Your task to perform on an android device: star an email in the gmail app Image 0: 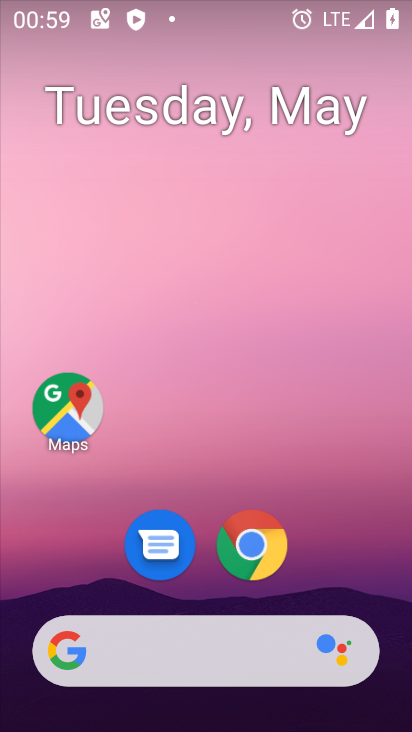
Step 0: drag from (337, 577) to (308, 47)
Your task to perform on an android device: star an email in the gmail app Image 1: 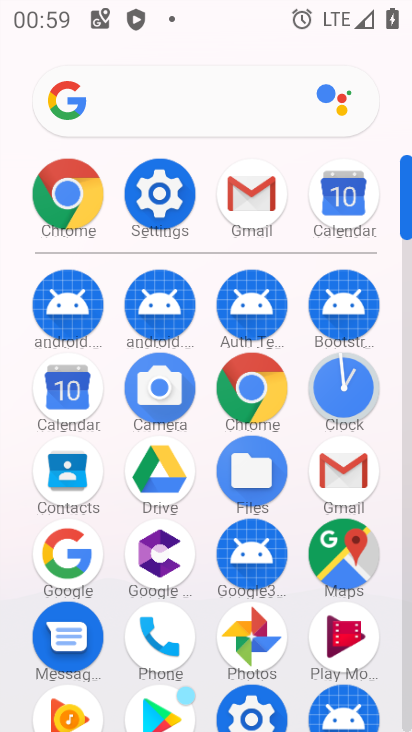
Step 1: click (346, 480)
Your task to perform on an android device: star an email in the gmail app Image 2: 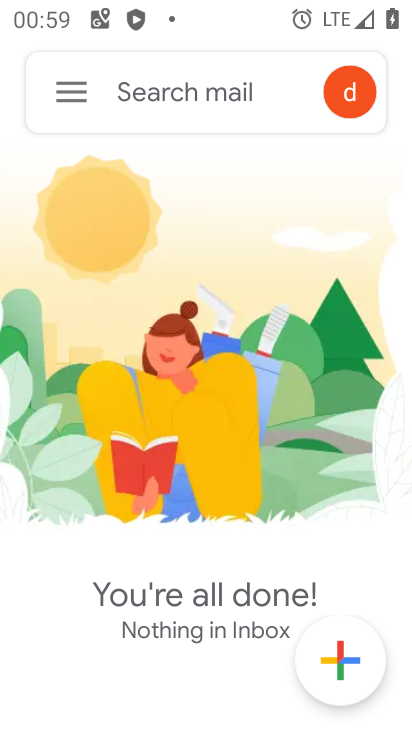
Step 2: click (75, 93)
Your task to perform on an android device: star an email in the gmail app Image 3: 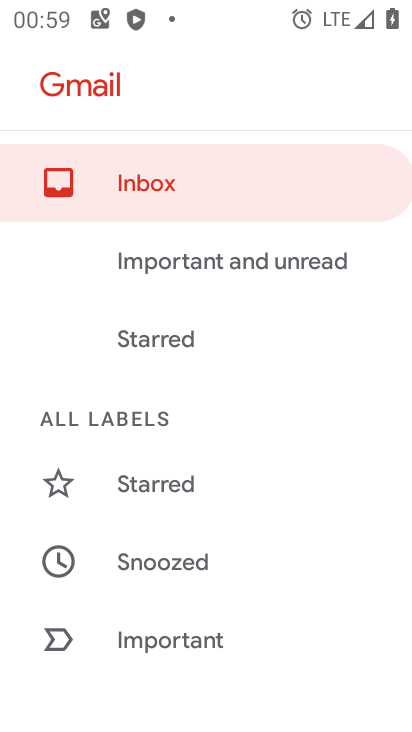
Step 3: drag from (184, 595) to (185, 135)
Your task to perform on an android device: star an email in the gmail app Image 4: 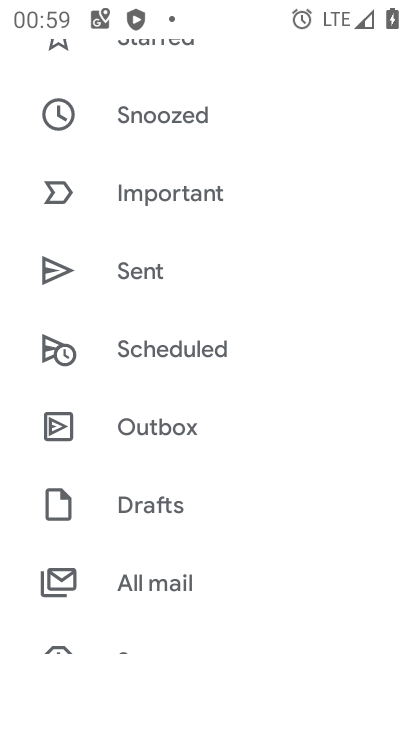
Step 4: click (205, 574)
Your task to perform on an android device: star an email in the gmail app Image 5: 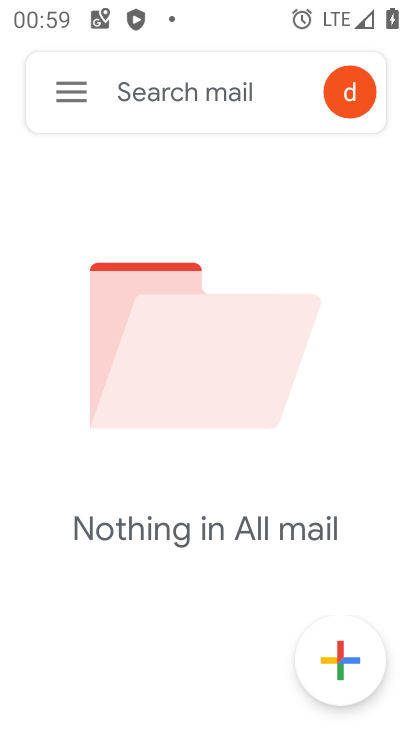
Step 5: task complete